Your task to perform on an android device: Open battery settings Image 0: 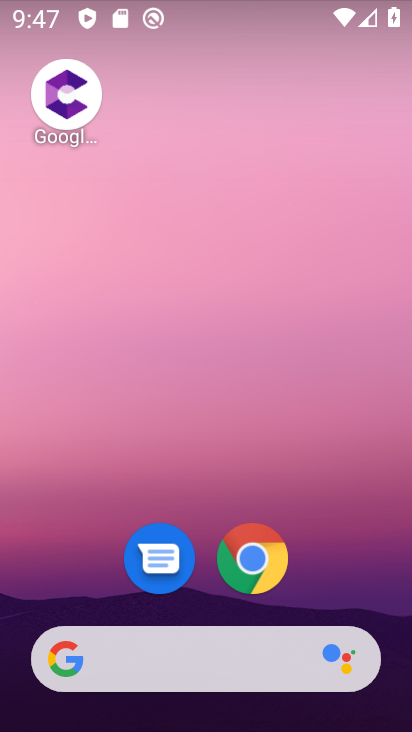
Step 0: drag from (43, 536) to (372, 65)
Your task to perform on an android device: Open battery settings Image 1: 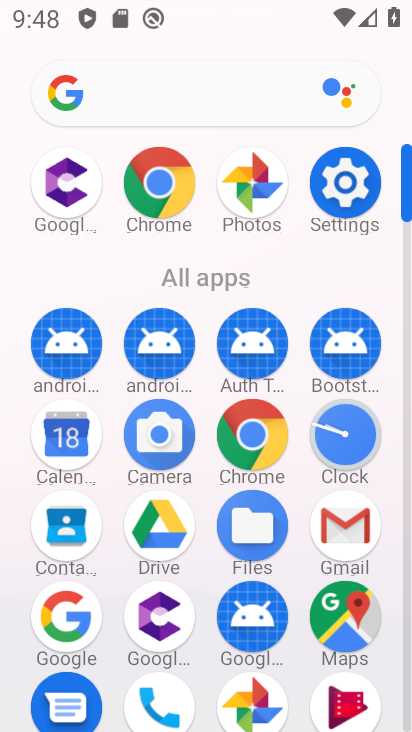
Step 1: click (350, 177)
Your task to perform on an android device: Open battery settings Image 2: 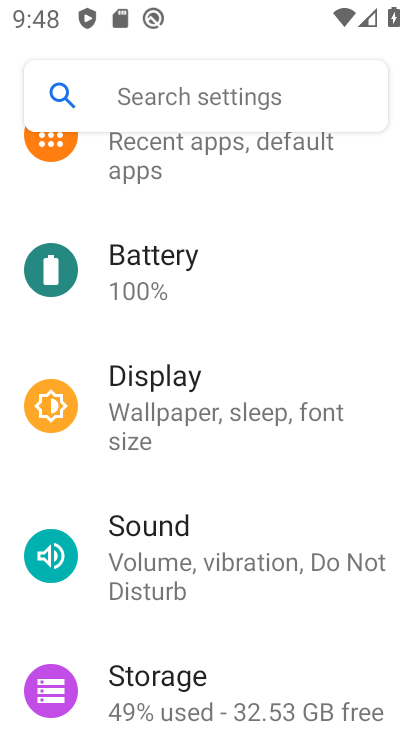
Step 2: click (147, 282)
Your task to perform on an android device: Open battery settings Image 3: 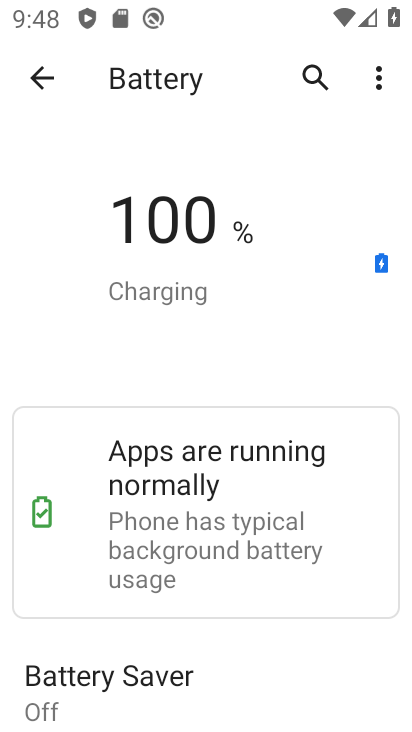
Step 3: task complete